Your task to perform on an android device: add a label to a message in the gmail app Image 0: 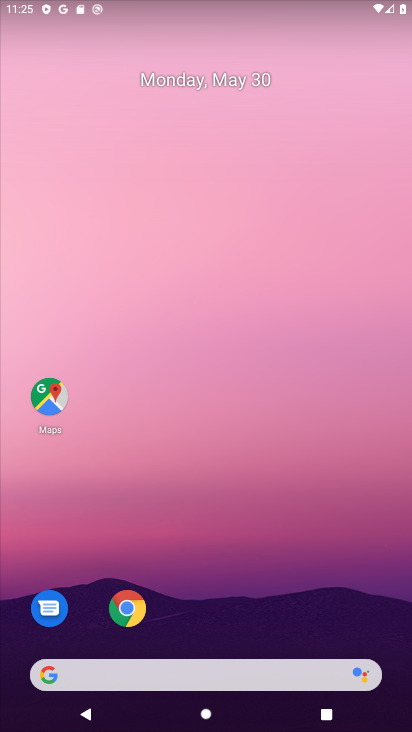
Step 0: drag from (378, 603) to (276, 85)
Your task to perform on an android device: add a label to a message in the gmail app Image 1: 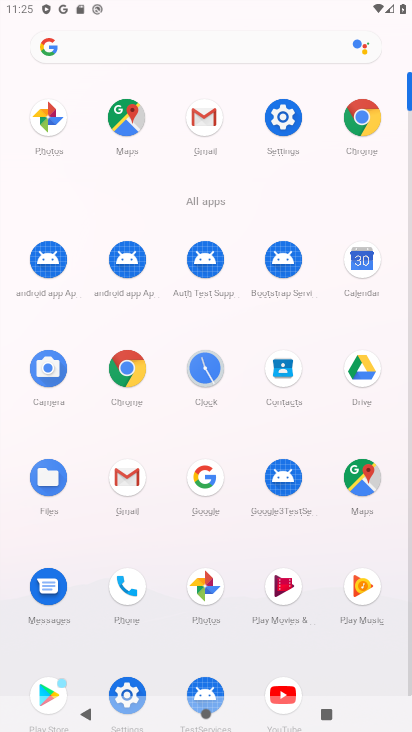
Step 1: click (207, 123)
Your task to perform on an android device: add a label to a message in the gmail app Image 2: 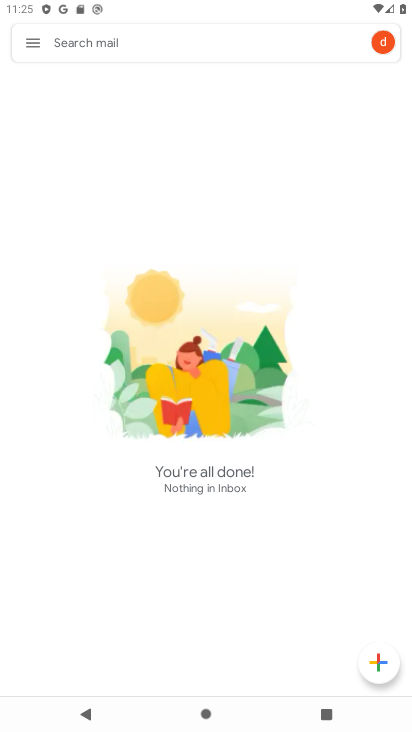
Step 2: click (34, 45)
Your task to perform on an android device: add a label to a message in the gmail app Image 3: 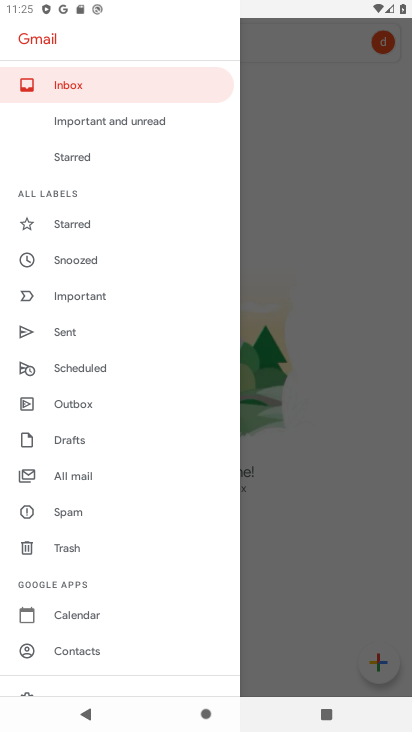
Step 3: click (90, 469)
Your task to perform on an android device: add a label to a message in the gmail app Image 4: 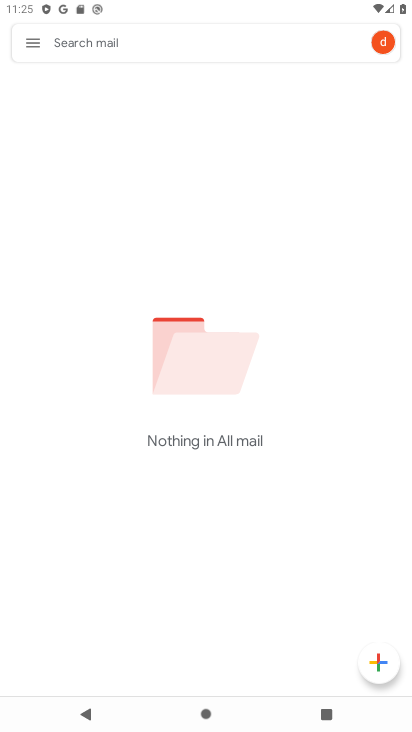
Step 4: task complete